Your task to perform on an android device: set default search engine in the chrome app Image 0: 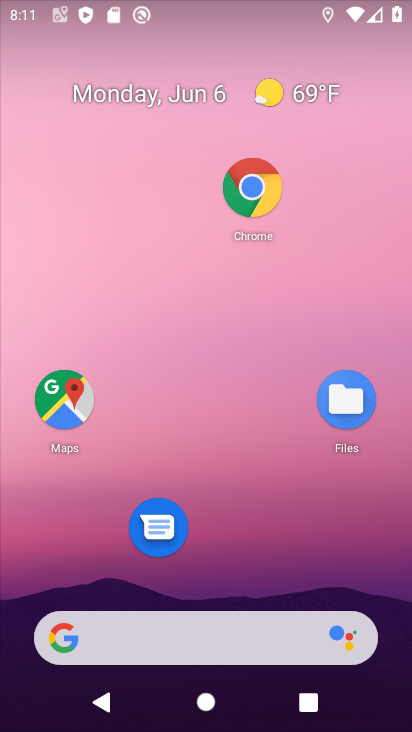
Step 0: click (250, 187)
Your task to perform on an android device: set default search engine in the chrome app Image 1: 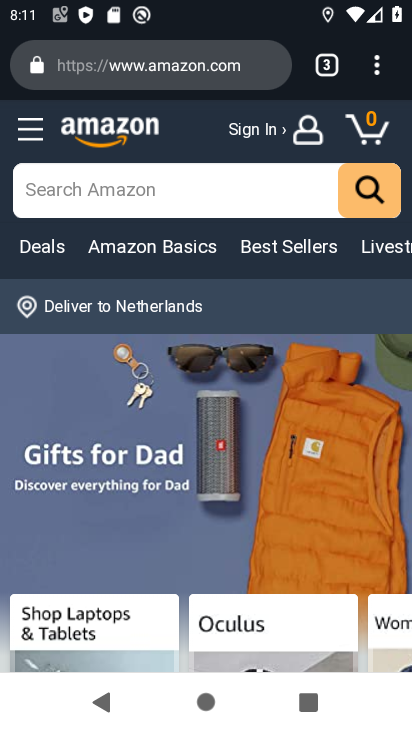
Step 1: click (381, 52)
Your task to perform on an android device: set default search engine in the chrome app Image 2: 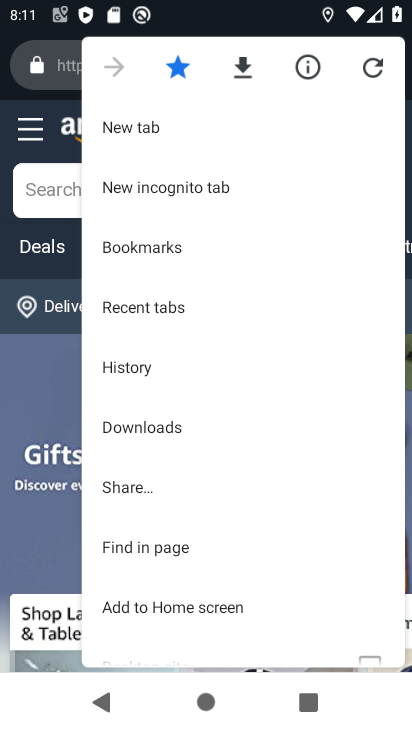
Step 2: drag from (236, 507) to (295, 66)
Your task to perform on an android device: set default search engine in the chrome app Image 3: 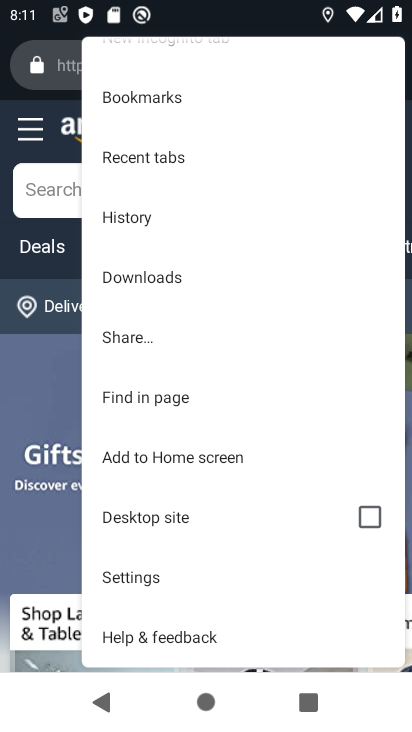
Step 3: click (135, 587)
Your task to perform on an android device: set default search engine in the chrome app Image 4: 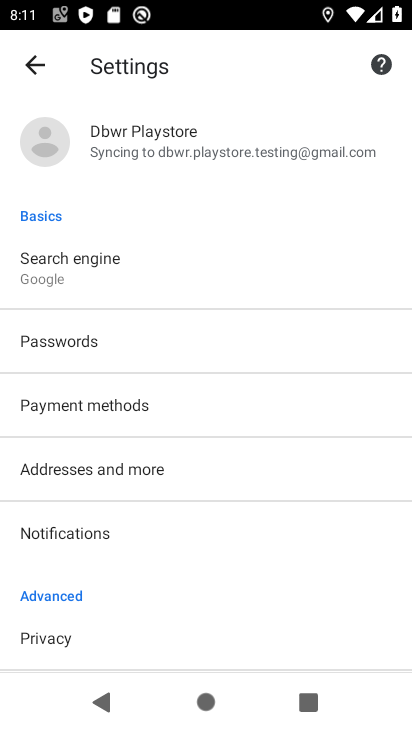
Step 4: click (94, 285)
Your task to perform on an android device: set default search engine in the chrome app Image 5: 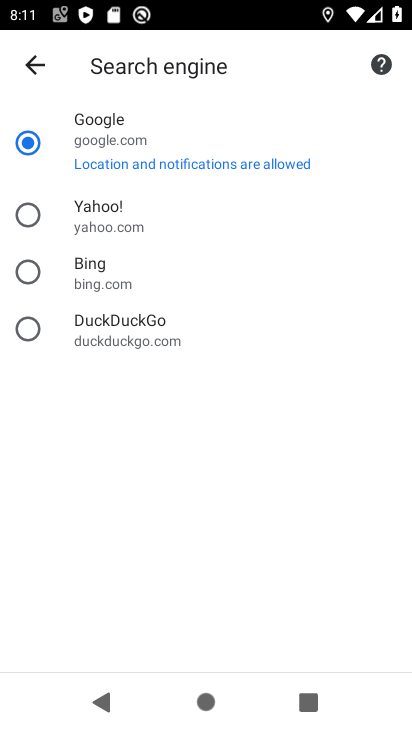
Step 5: click (35, 208)
Your task to perform on an android device: set default search engine in the chrome app Image 6: 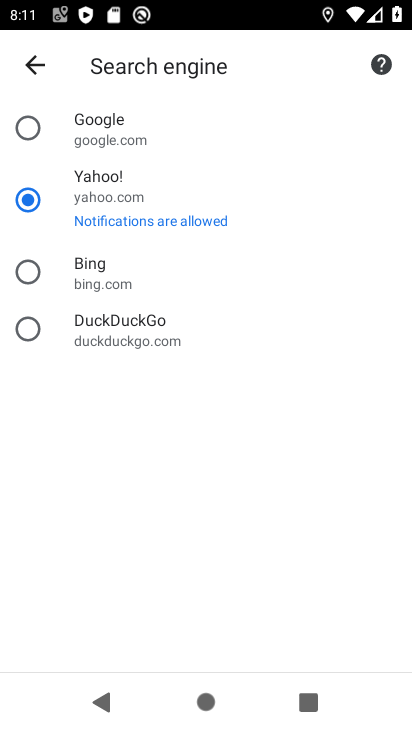
Step 6: task complete